Your task to perform on an android device: move an email to a new category in the gmail app Image 0: 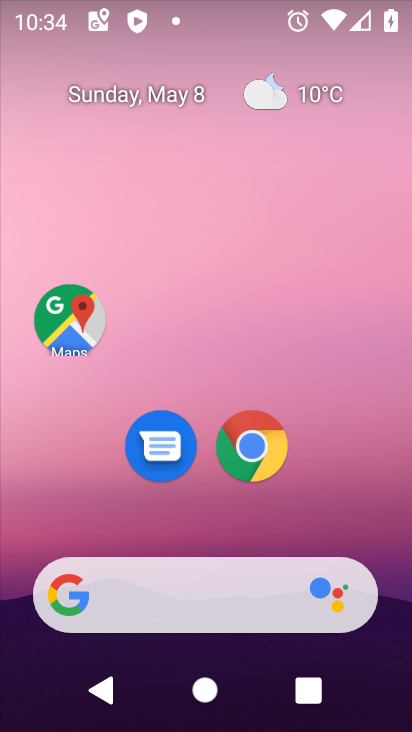
Step 0: drag from (392, 548) to (363, 3)
Your task to perform on an android device: move an email to a new category in the gmail app Image 1: 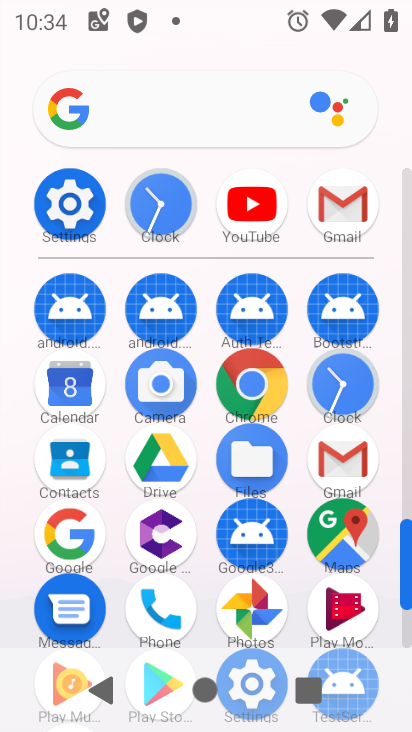
Step 1: click (338, 204)
Your task to perform on an android device: move an email to a new category in the gmail app Image 2: 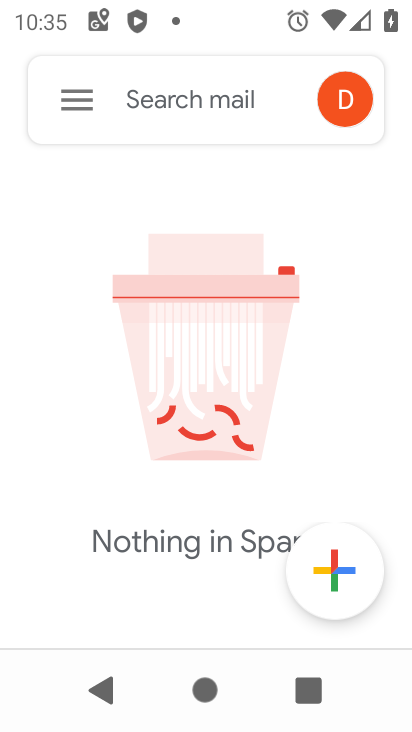
Step 2: click (80, 108)
Your task to perform on an android device: move an email to a new category in the gmail app Image 3: 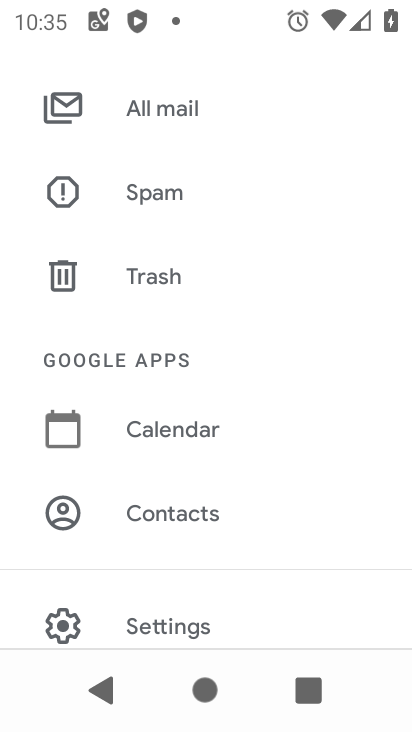
Step 3: drag from (321, 600) to (332, 635)
Your task to perform on an android device: move an email to a new category in the gmail app Image 4: 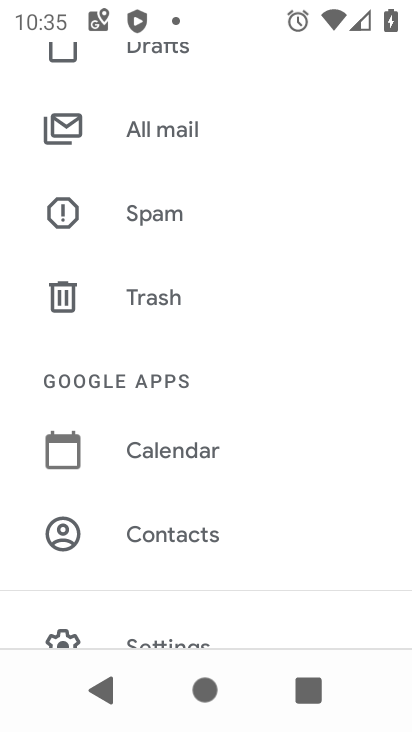
Step 4: drag from (261, 176) to (281, 540)
Your task to perform on an android device: move an email to a new category in the gmail app Image 5: 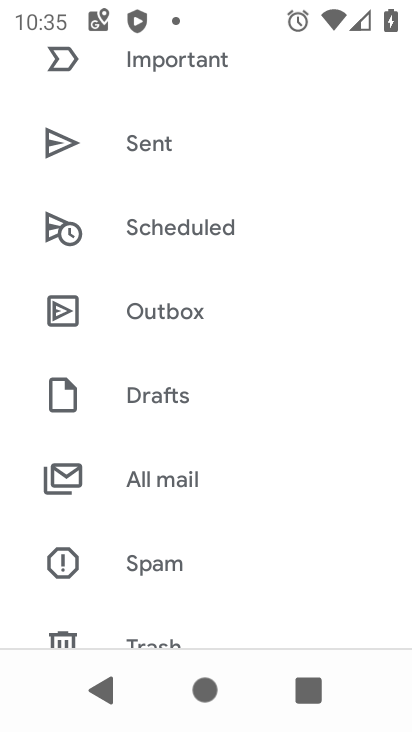
Step 5: drag from (214, 154) to (224, 416)
Your task to perform on an android device: move an email to a new category in the gmail app Image 6: 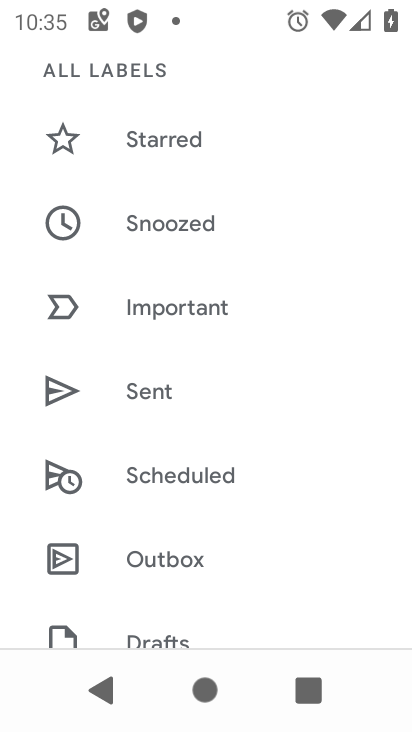
Step 6: click (207, 319)
Your task to perform on an android device: move an email to a new category in the gmail app Image 7: 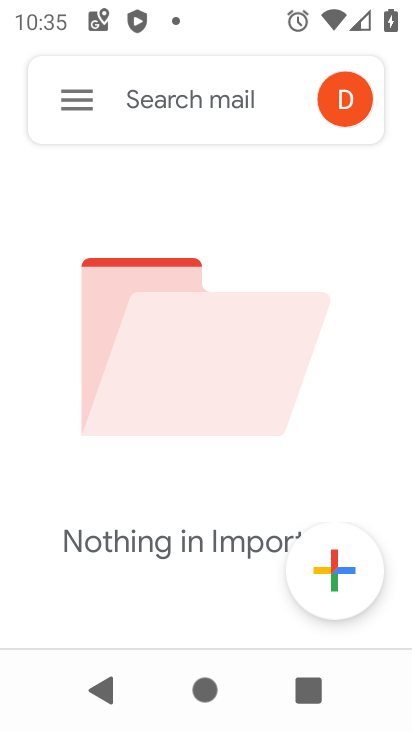
Step 7: task complete